Your task to perform on an android device: open wifi settings Image 0: 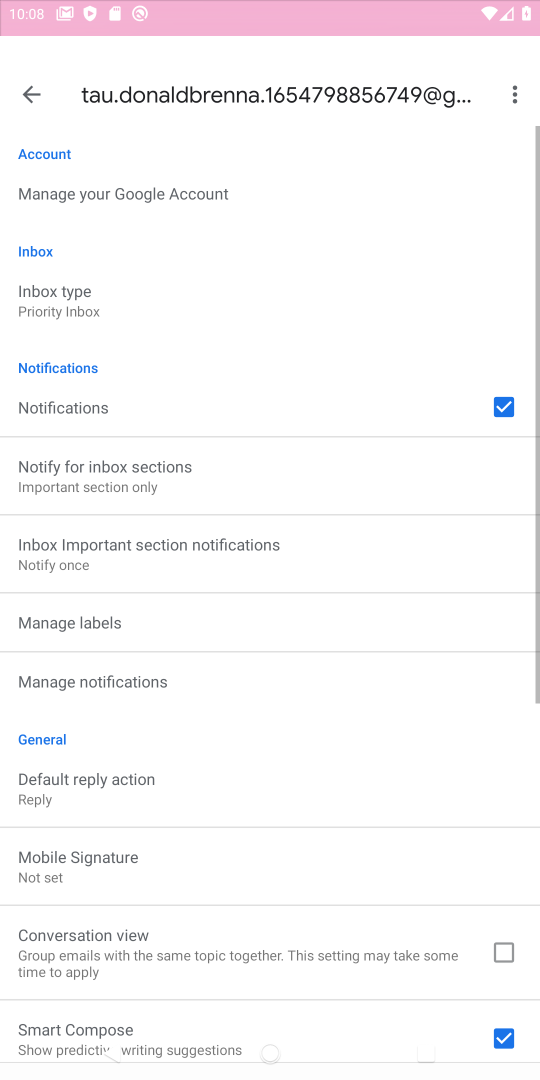
Step 0: drag from (364, 443) to (309, 20)
Your task to perform on an android device: open wifi settings Image 1: 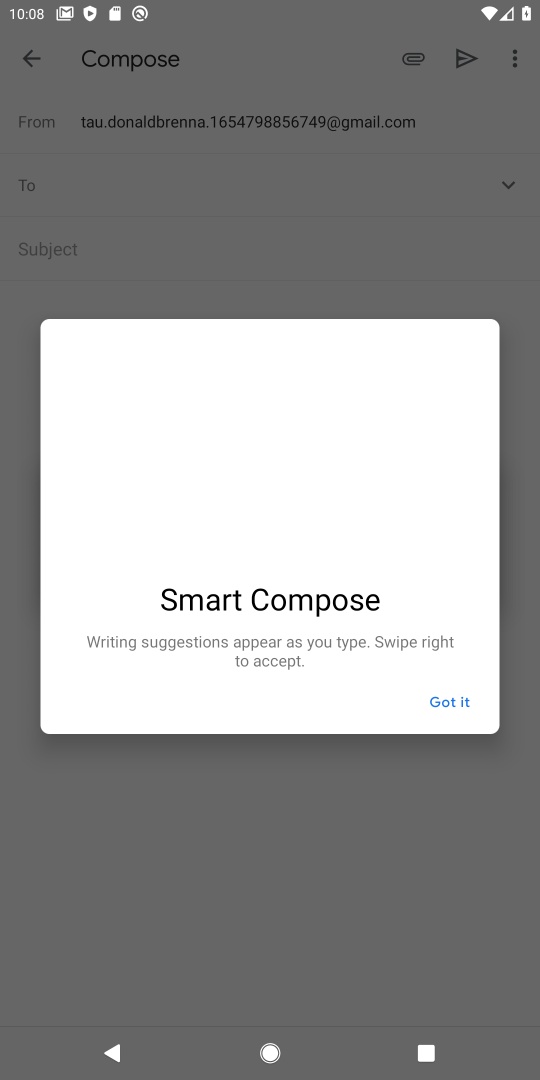
Step 1: drag from (281, 15) to (358, 1033)
Your task to perform on an android device: open wifi settings Image 2: 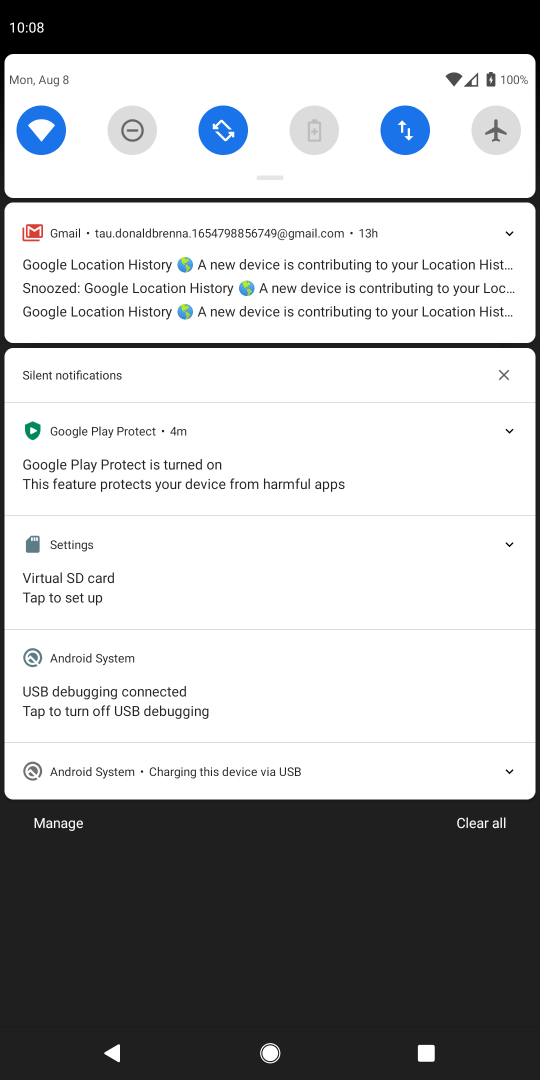
Step 2: click (34, 139)
Your task to perform on an android device: open wifi settings Image 3: 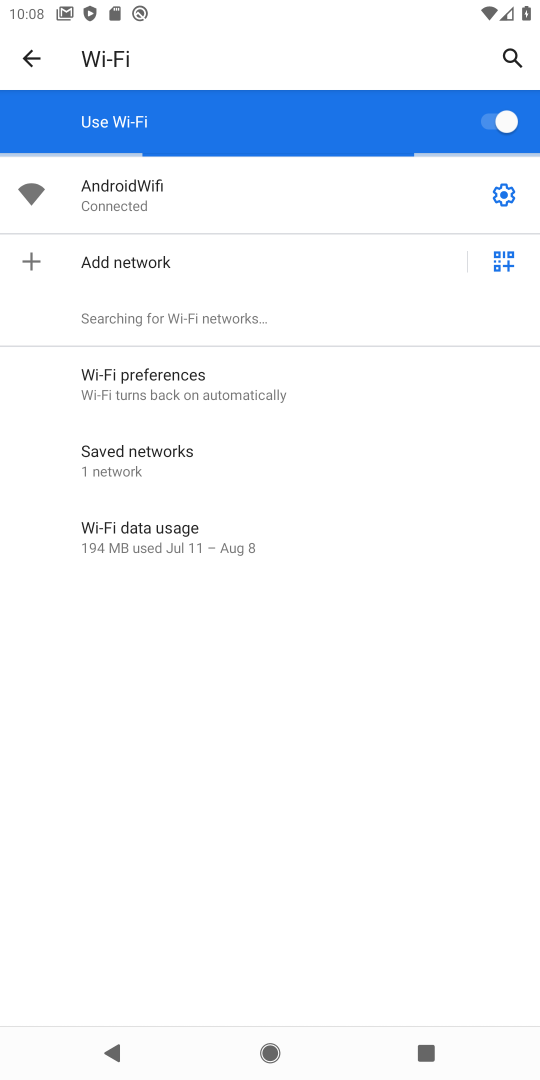
Step 3: task complete